Your task to perform on an android device: toggle location history Image 0: 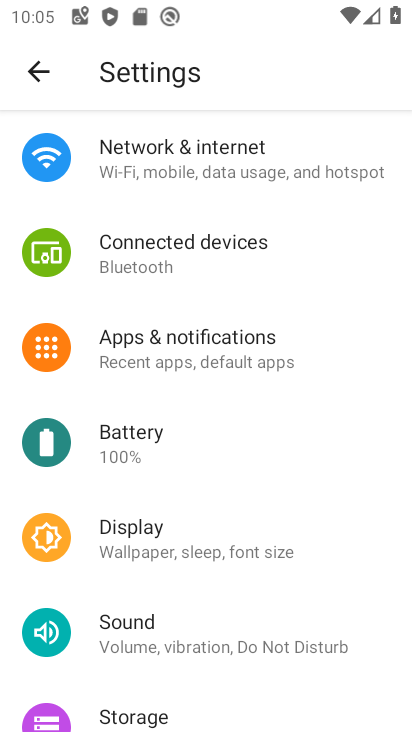
Step 0: drag from (105, 695) to (194, 173)
Your task to perform on an android device: toggle location history Image 1: 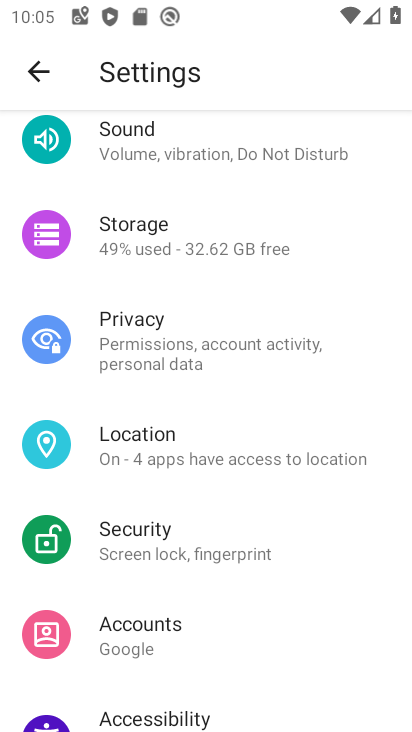
Step 1: click (148, 443)
Your task to perform on an android device: toggle location history Image 2: 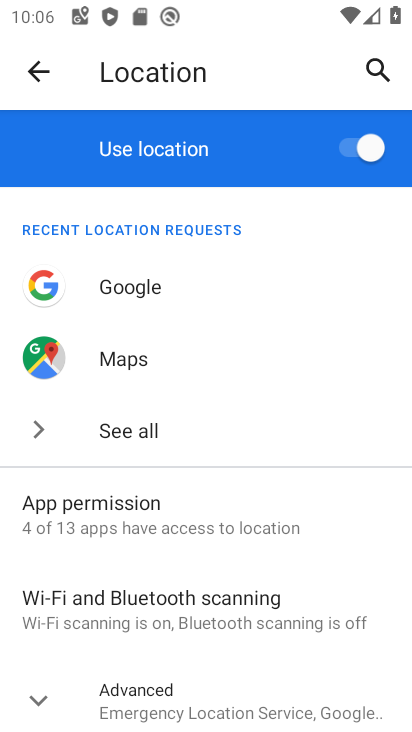
Step 2: drag from (145, 639) to (248, 58)
Your task to perform on an android device: toggle location history Image 3: 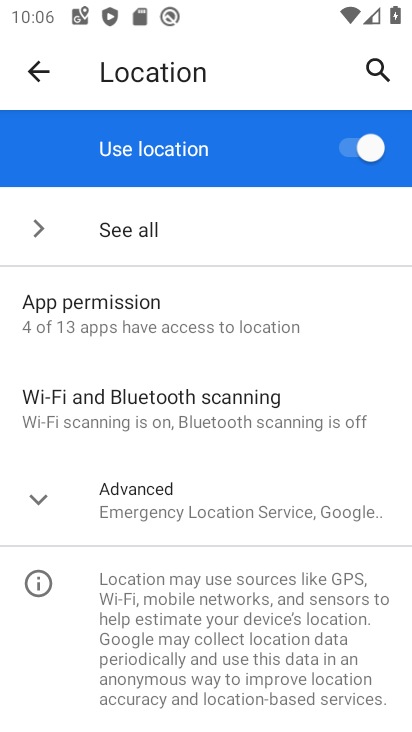
Step 3: click (160, 498)
Your task to perform on an android device: toggle location history Image 4: 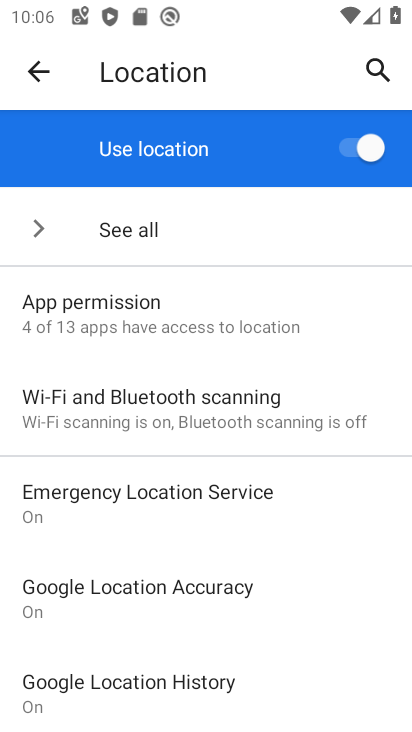
Step 4: drag from (192, 646) to (271, 256)
Your task to perform on an android device: toggle location history Image 5: 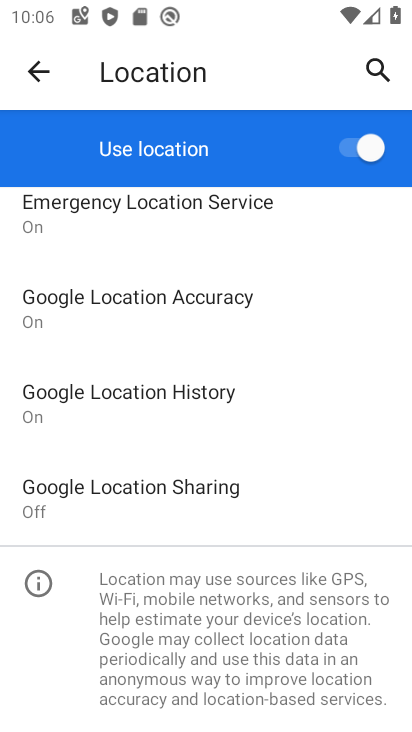
Step 5: click (158, 420)
Your task to perform on an android device: toggle location history Image 6: 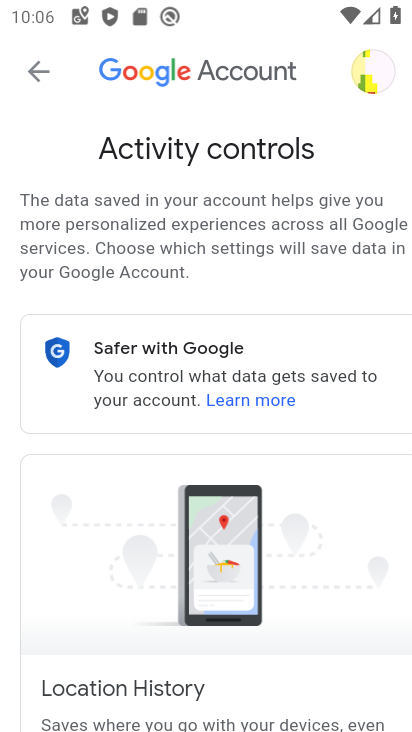
Step 6: drag from (143, 573) to (220, 66)
Your task to perform on an android device: toggle location history Image 7: 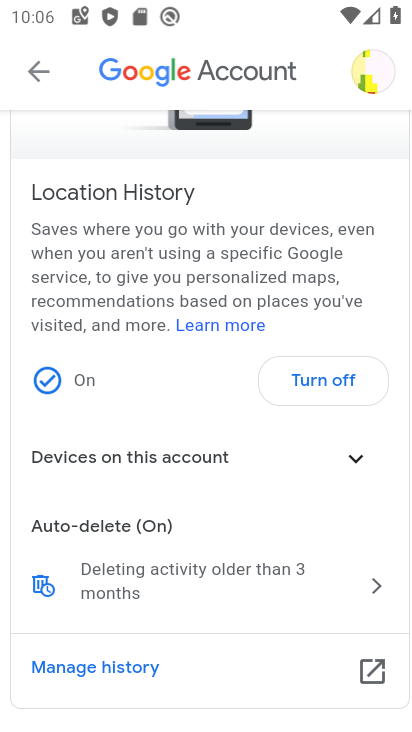
Step 7: click (320, 371)
Your task to perform on an android device: toggle location history Image 8: 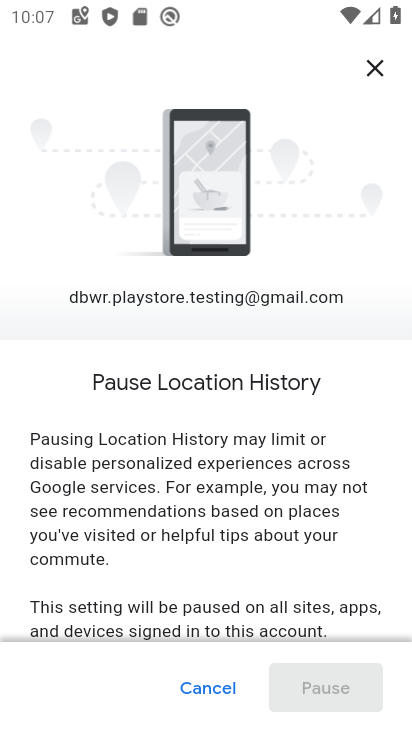
Step 8: drag from (223, 550) to (385, 26)
Your task to perform on an android device: toggle location history Image 9: 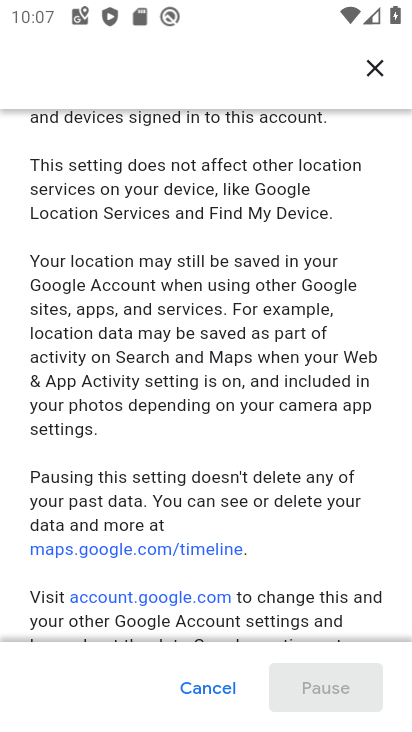
Step 9: drag from (232, 630) to (284, 39)
Your task to perform on an android device: toggle location history Image 10: 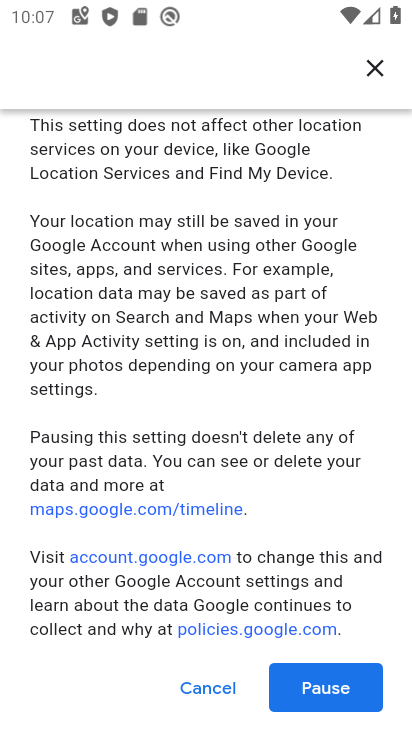
Step 10: click (347, 692)
Your task to perform on an android device: toggle location history Image 11: 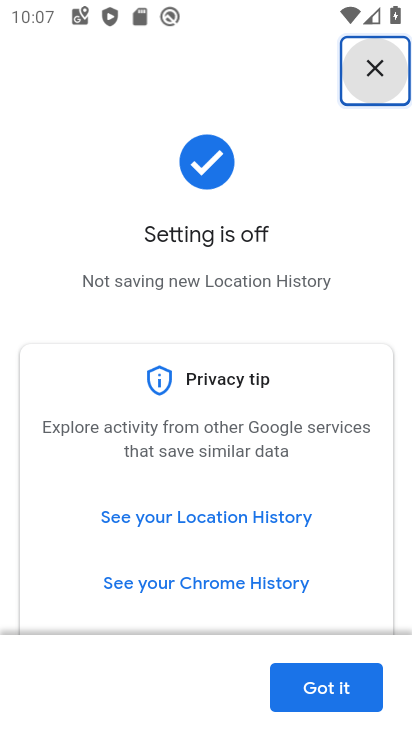
Step 11: click (317, 673)
Your task to perform on an android device: toggle location history Image 12: 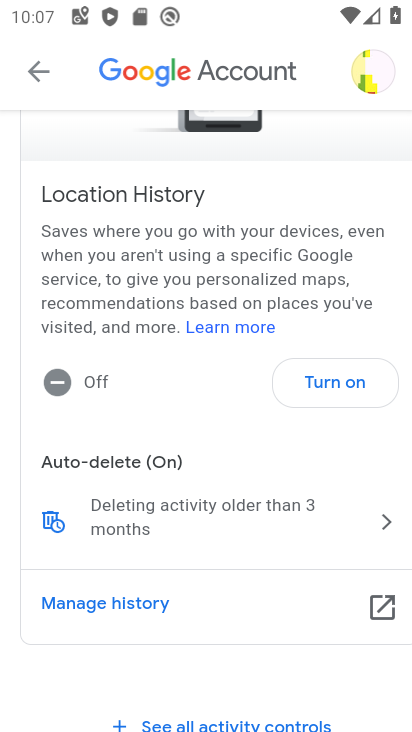
Step 12: task complete